Your task to perform on an android device: turn on improve location accuracy Image 0: 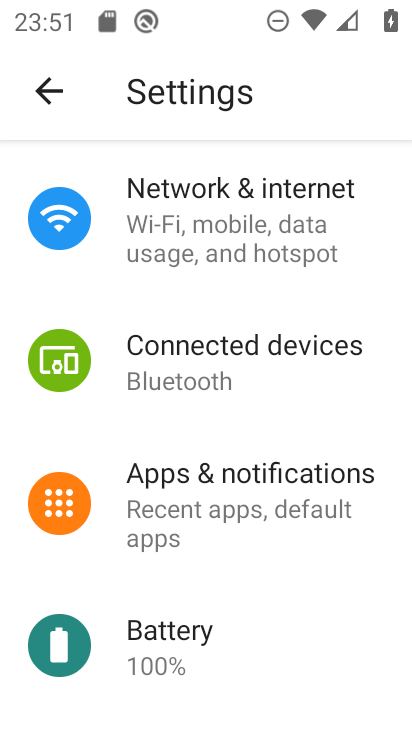
Step 0: drag from (321, 650) to (325, 171)
Your task to perform on an android device: turn on improve location accuracy Image 1: 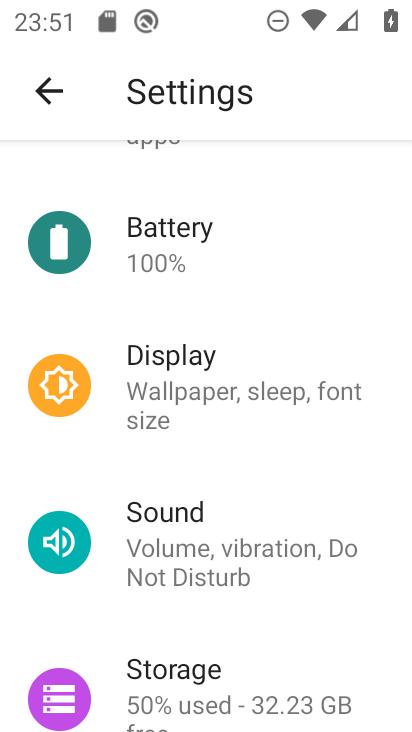
Step 1: drag from (340, 628) to (278, 189)
Your task to perform on an android device: turn on improve location accuracy Image 2: 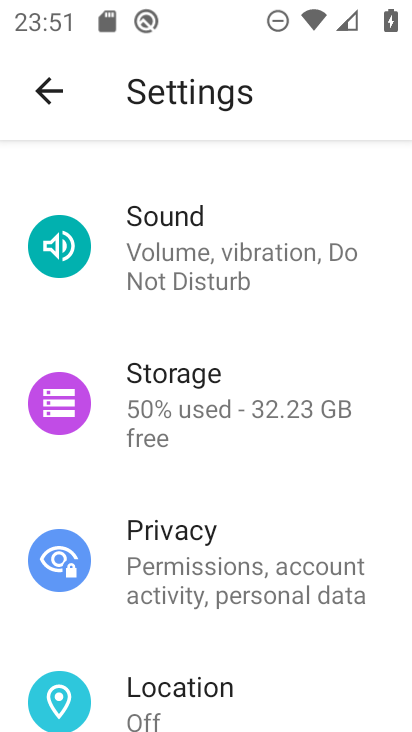
Step 2: drag from (340, 692) to (296, 214)
Your task to perform on an android device: turn on improve location accuracy Image 3: 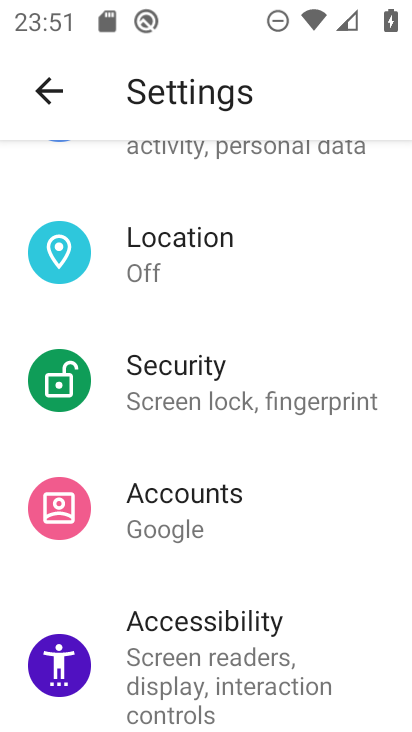
Step 3: click (174, 245)
Your task to perform on an android device: turn on improve location accuracy Image 4: 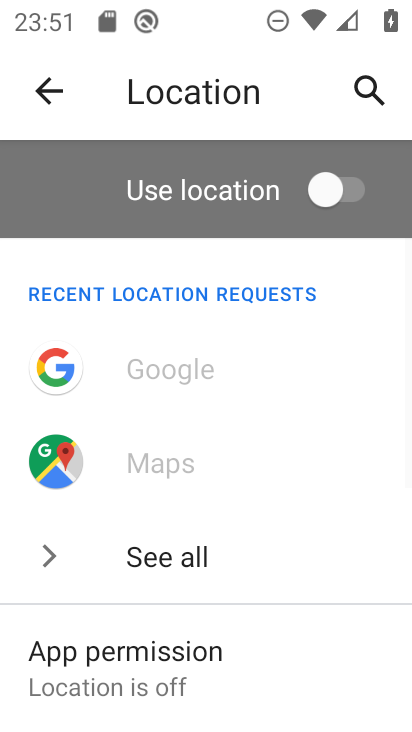
Step 4: drag from (277, 636) to (240, 200)
Your task to perform on an android device: turn on improve location accuracy Image 5: 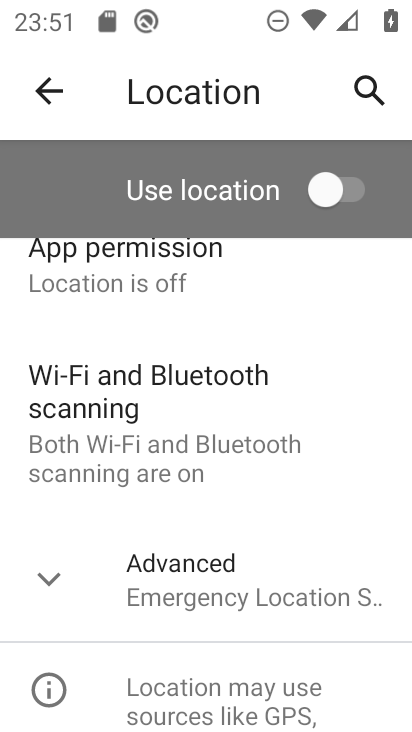
Step 5: click (54, 585)
Your task to perform on an android device: turn on improve location accuracy Image 6: 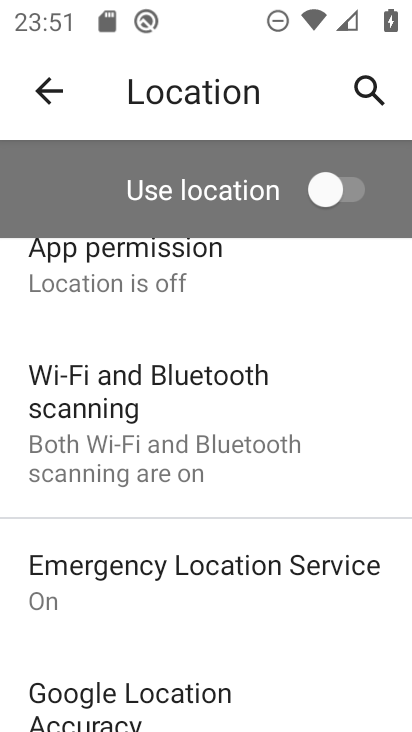
Step 6: drag from (324, 690) to (264, 323)
Your task to perform on an android device: turn on improve location accuracy Image 7: 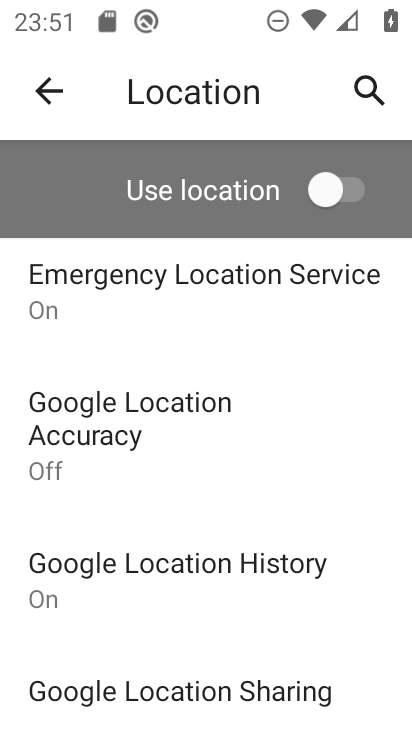
Step 7: click (62, 438)
Your task to perform on an android device: turn on improve location accuracy Image 8: 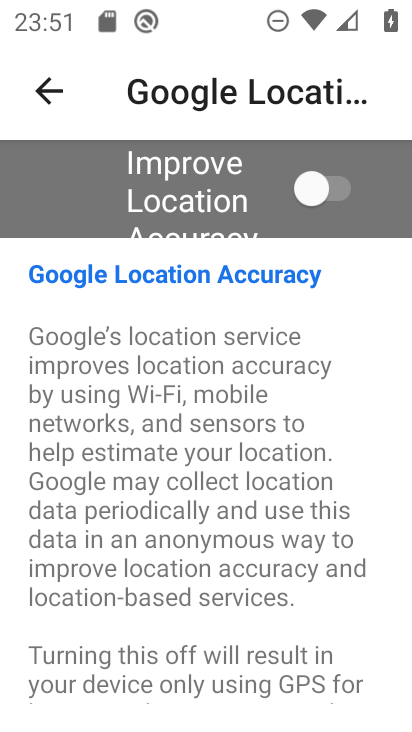
Step 8: click (346, 188)
Your task to perform on an android device: turn on improve location accuracy Image 9: 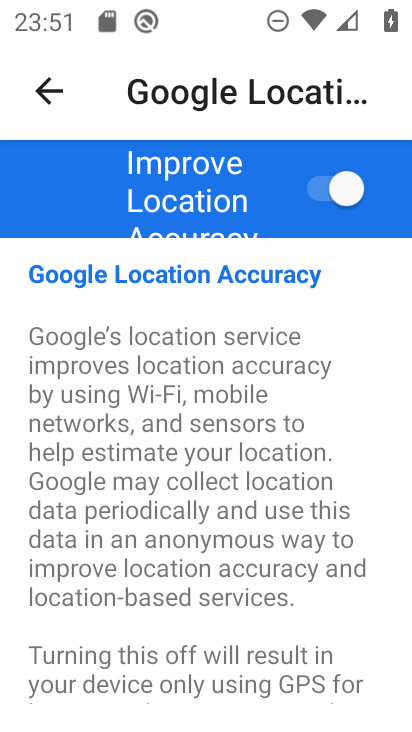
Step 9: task complete